Your task to perform on an android device: Go to network settings Image 0: 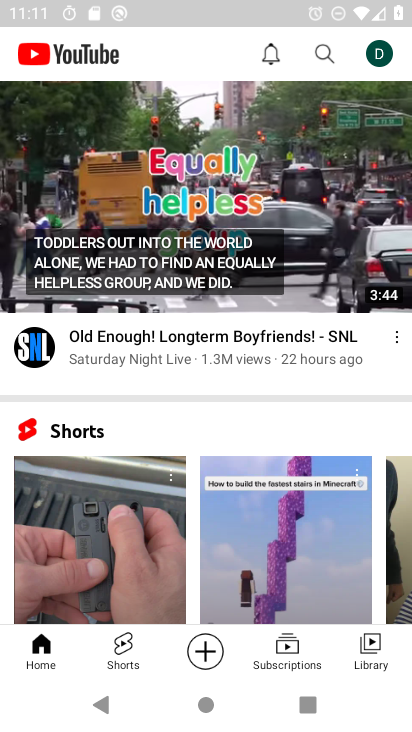
Step 0: press home button
Your task to perform on an android device: Go to network settings Image 1: 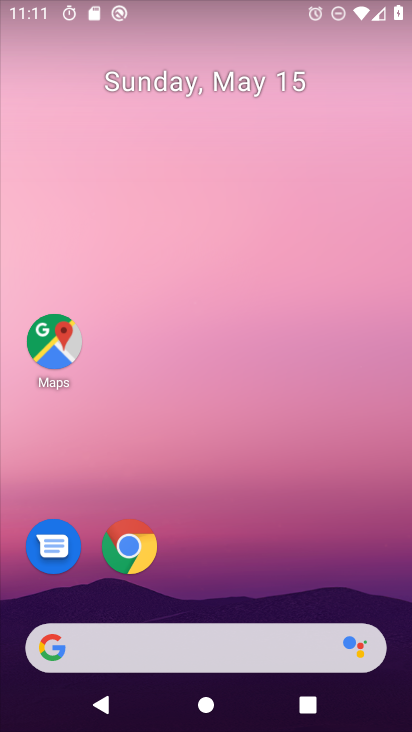
Step 1: drag from (296, 542) to (305, 65)
Your task to perform on an android device: Go to network settings Image 2: 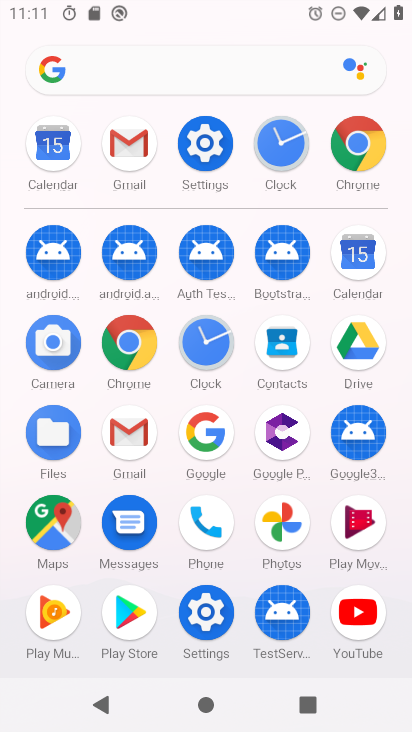
Step 2: click (186, 137)
Your task to perform on an android device: Go to network settings Image 3: 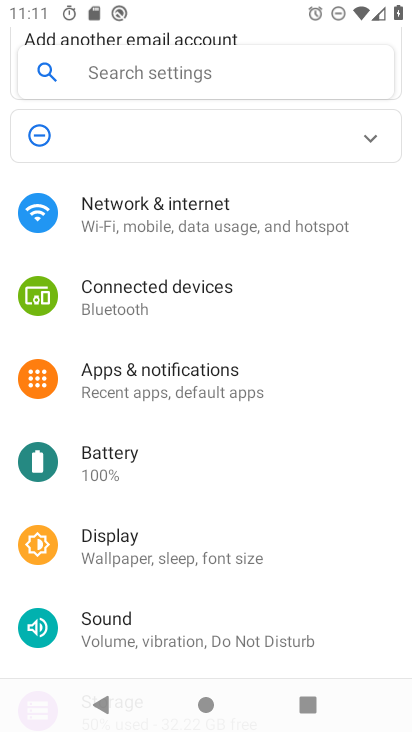
Step 3: click (169, 208)
Your task to perform on an android device: Go to network settings Image 4: 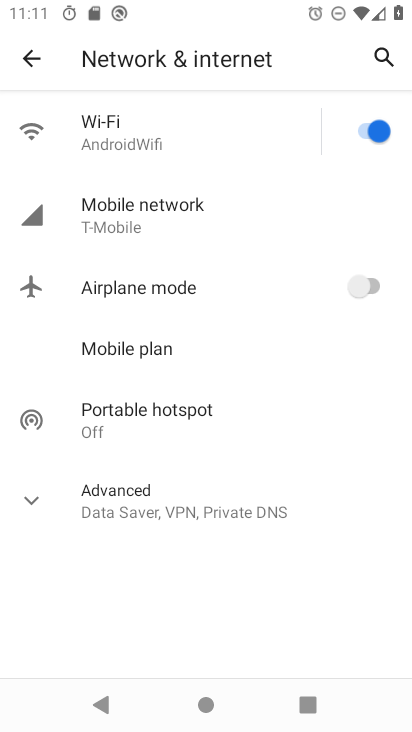
Step 4: task complete